Your task to perform on an android device: Open Google Chrome and open the bookmarks view Image 0: 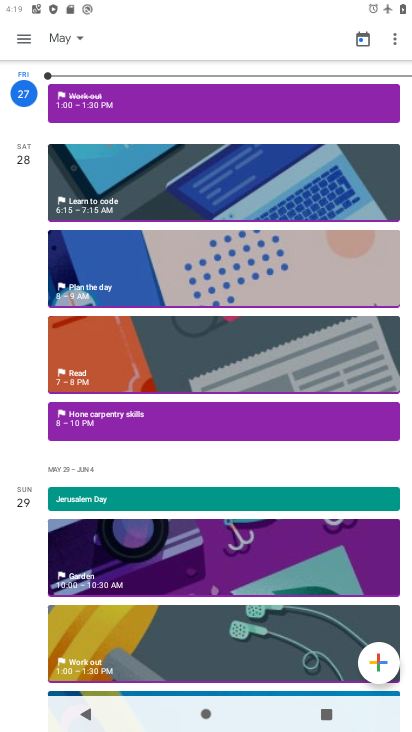
Step 0: press home button
Your task to perform on an android device: Open Google Chrome and open the bookmarks view Image 1: 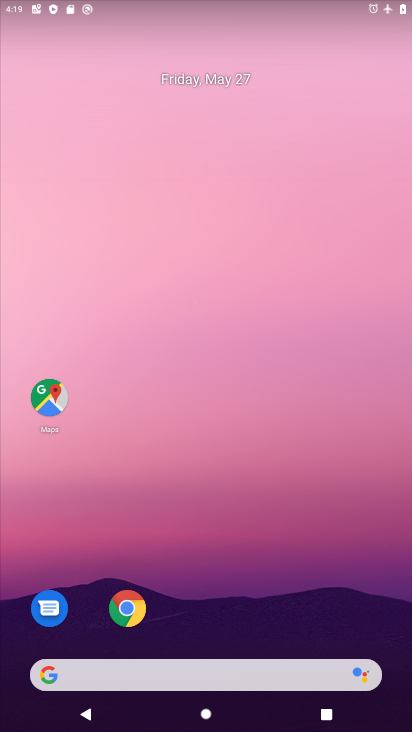
Step 1: click (137, 605)
Your task to perform on an android device: Open Google Chrome and open the bookmarks view Image 2: 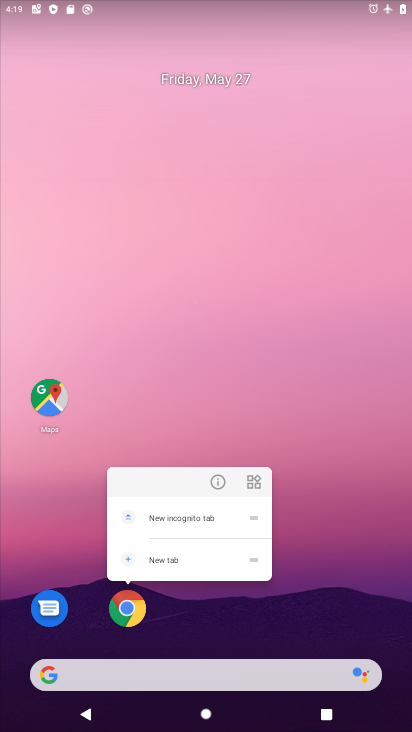
Step 2: click (130, 616)
Your task to perform on an android device: Open Google Chrome and open the bookmarks view Image 3: 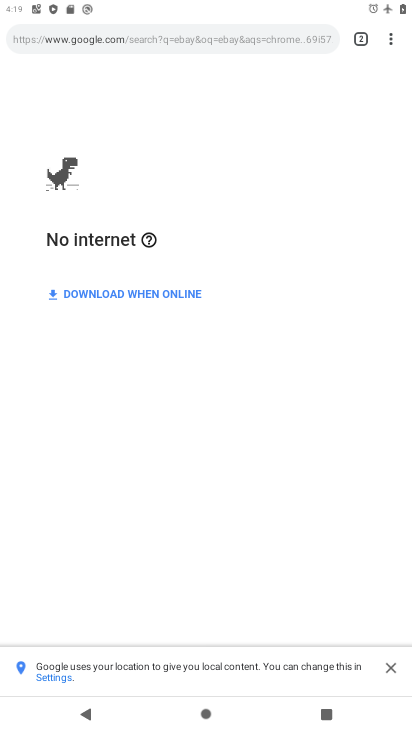
Step 3: click (389, 40)
Your task to perform on an android device: Open Google Chrome and open the bookmarks view Image 4: 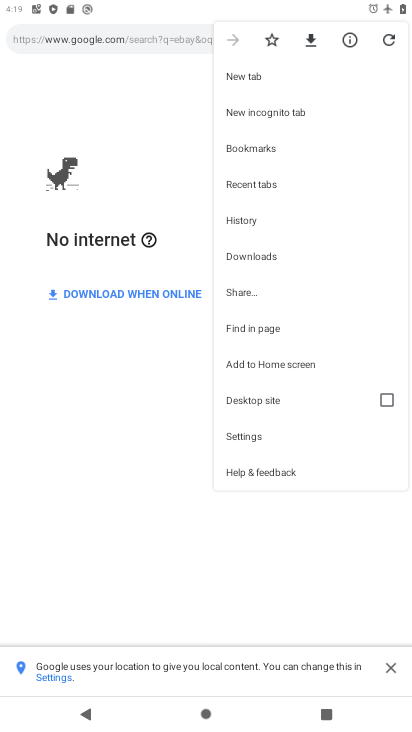
Step 4: click (242, 154)
Your task to perform on an android device: Open Google Chrome and open the bookmarks view Image 5: 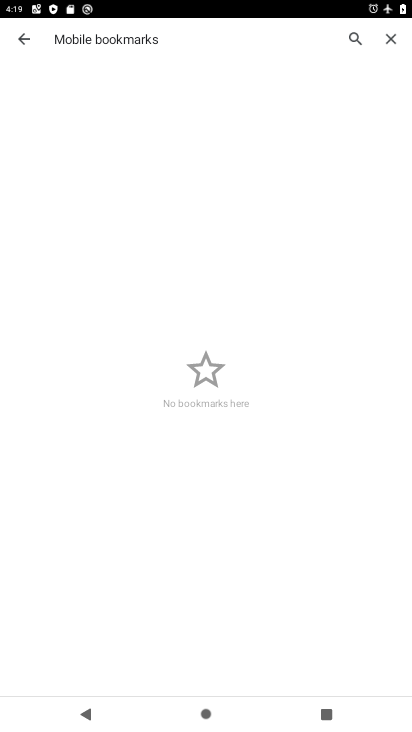
Step 5: task complete